Your task to perform on an android device: turn on showing notifications on the lock screen Image 0: 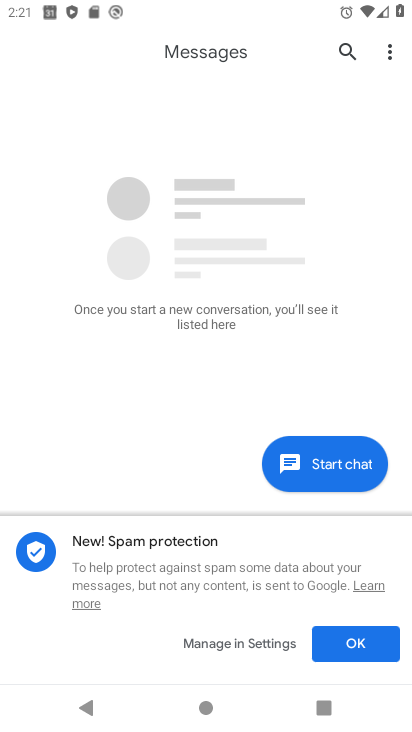
Step 0: press home button
Your task to perform on an android device: turn on showing notifications on the lock screen Image 1: 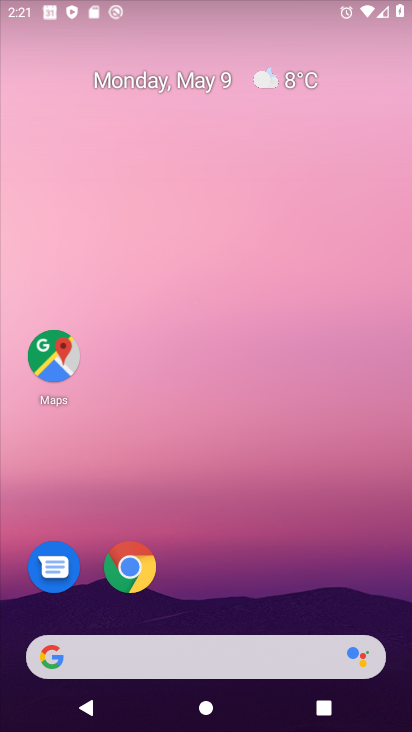
Step 1: drag from (204, 529) to (206, 245)
Your task to perform on an android device: turn on showing notifications on the lock screen Image 2: 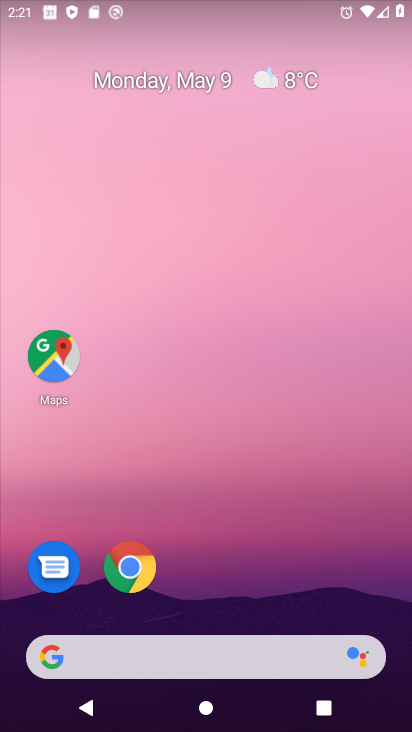
Step 2: drag from (302, 597) to (327, 327)
Your task to perform on an android device: turn on showing notifications on the lock screen Image 3: 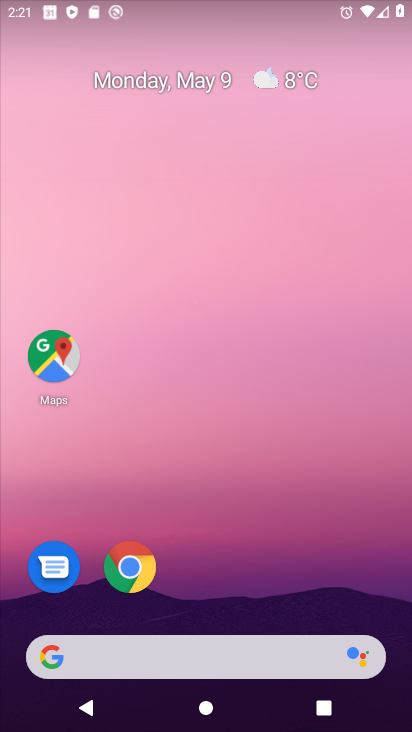
Step 3: drag from (286, 655) to (303, 337)
Your task to perform on an android device: turn on showing notifications on the lock screen Image 4: 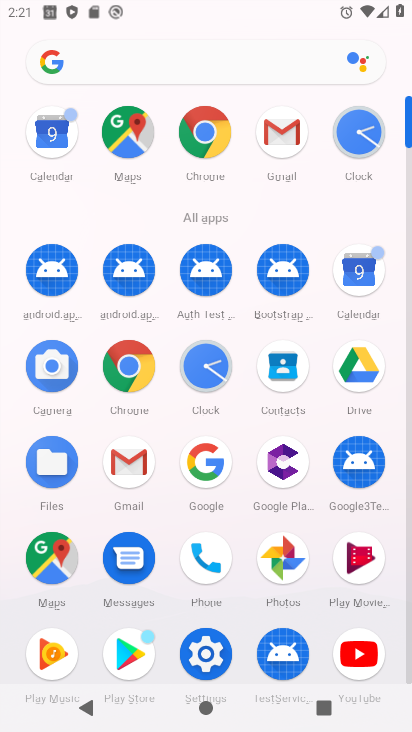
Step 4: click (199, 653)
Your task to perform on an android device: turn on showing notifications on the lock screen Image 5: 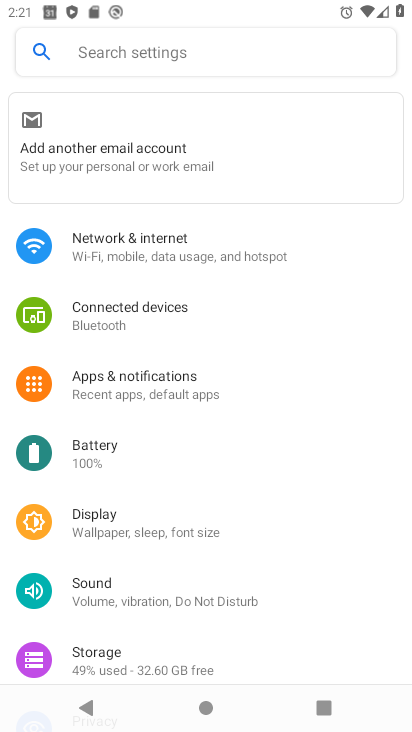
Step 5: click (155, 361)
Your task to perform on an android device: turn on showing notifications on the lock screen Image 6: 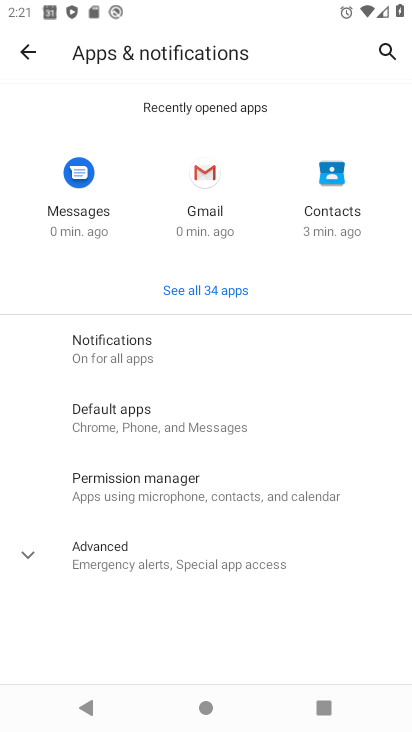
Step 6: click (175, 561)
Your task to perform on an android device: turn on showing notifications on the lock screen Image 7: 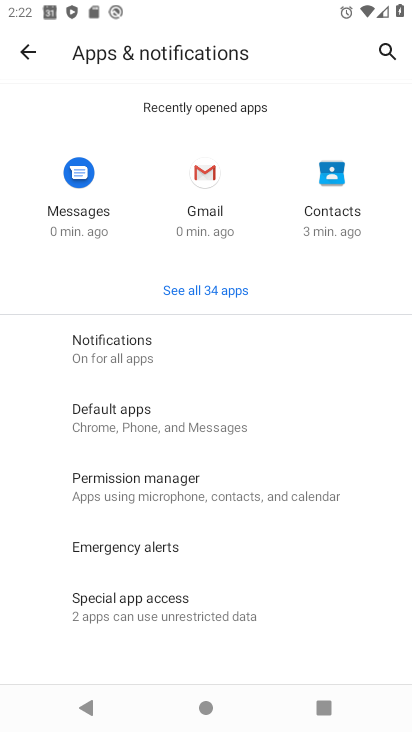
Step 7: press back button
Your task to perform on an android device: turn on showing notifications on the lock screen Image 8: 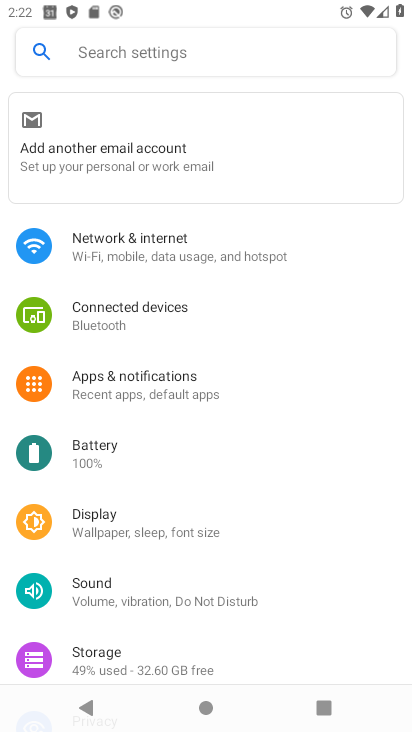
Step 8: click (143, 392)
Your task to perform on an android device: turn on showing notifications on the lock screen Image 9: 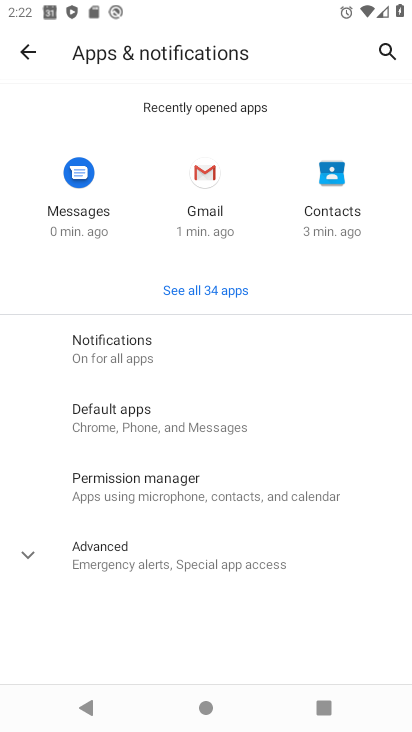
Step 9: click (138, 325)
Your task to perform on an android device: turn on showing notifications on the lock screen Image 10: 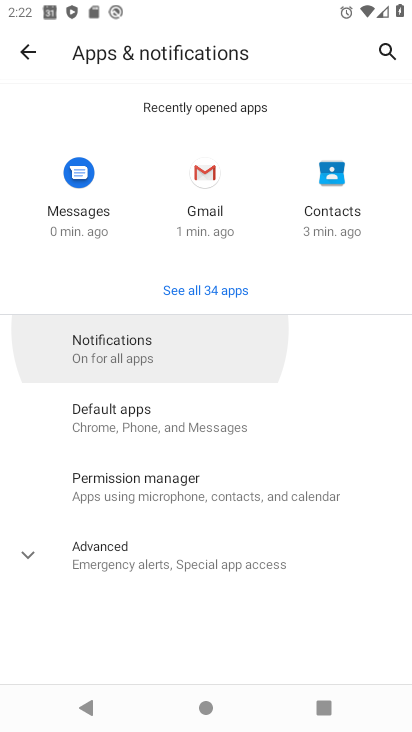
Step 10: click (132, 354)
Your task to perform on an android device: turn on showing notifications on the lock screen Image 11: 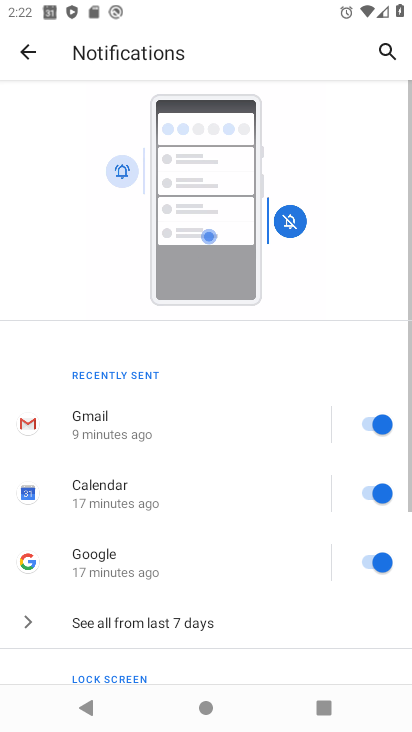
Step 11: drag from (144, 629) to (195, 265)
Your task to perform on an android device: turn on showing notifications on the lock screen Image 12: 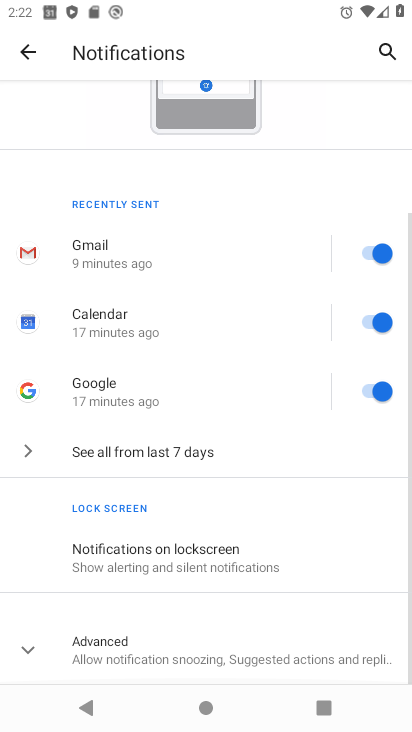
Step 12: click (144, 561)
Your task to perform on an android device: turn on showing notifications on the lock screen Image 13: 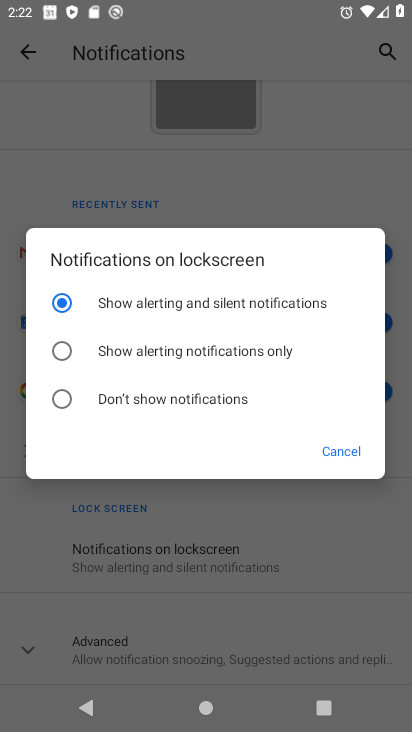
Step 13: click (164, 344)
Your task to perform on an android device: turn on showing notifications on the lock screen Image 14: 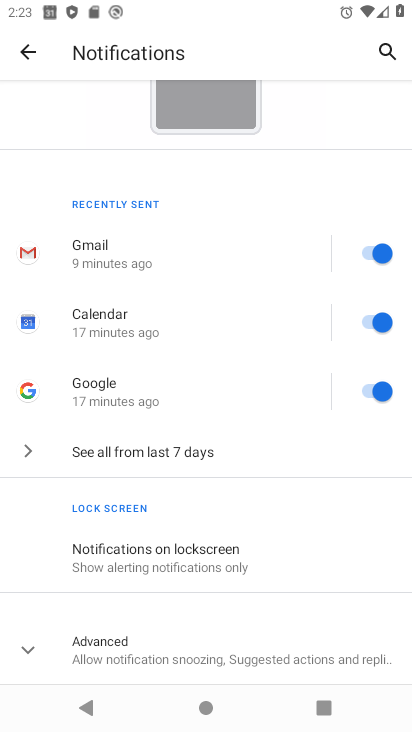
Step 14: task complete